Your task to perform on an android device: View the shopping cart on bestbuy.com. Image 0: 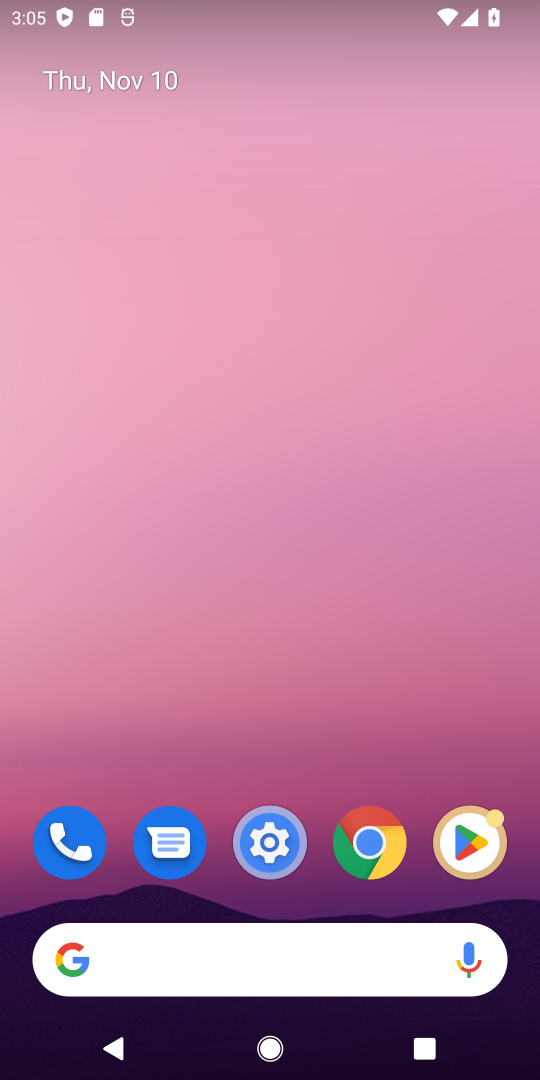
Step 0: click (123, 960)
Your task to perform on an android device: View the shopping cart on bestbuy.com. Image 1: 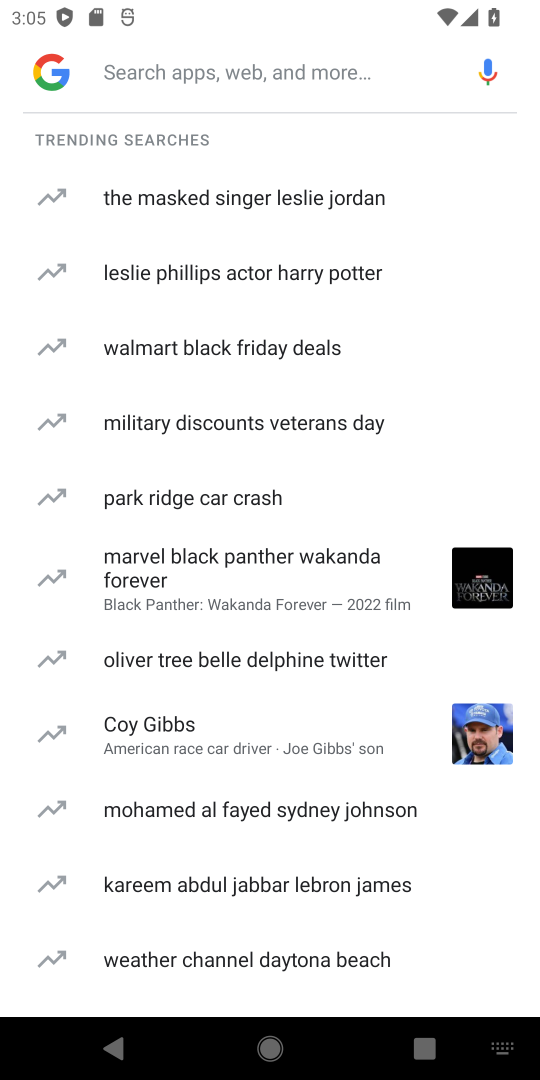
Step 1: type " bestbuy.com"
Your task to perform on an android device: View the shopping cart on bestbuy.com. Image 2: 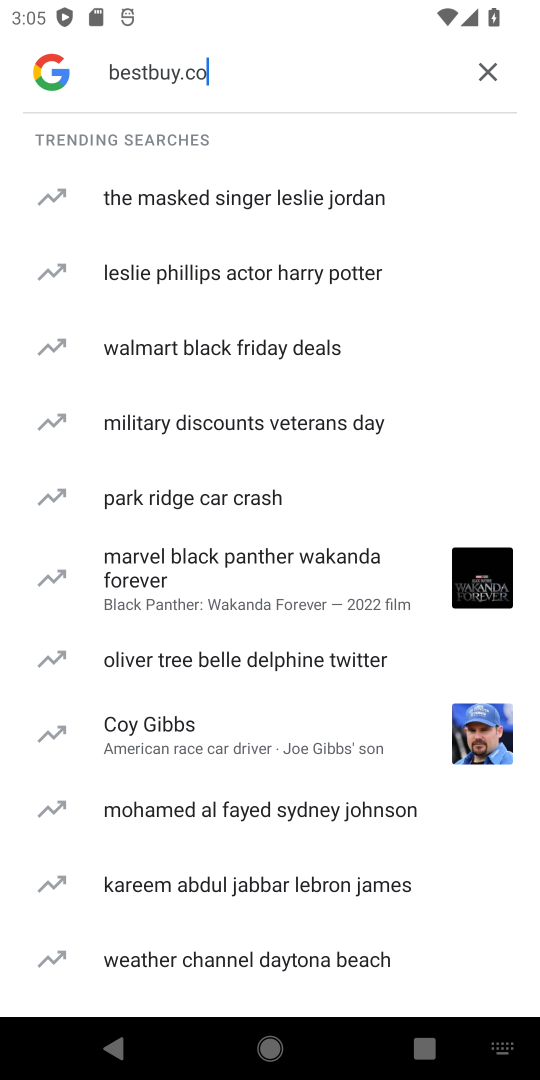
Step 2: press enter
Your task to perform on an android device: View the shopping cart on bestbuy.com. Image 3: 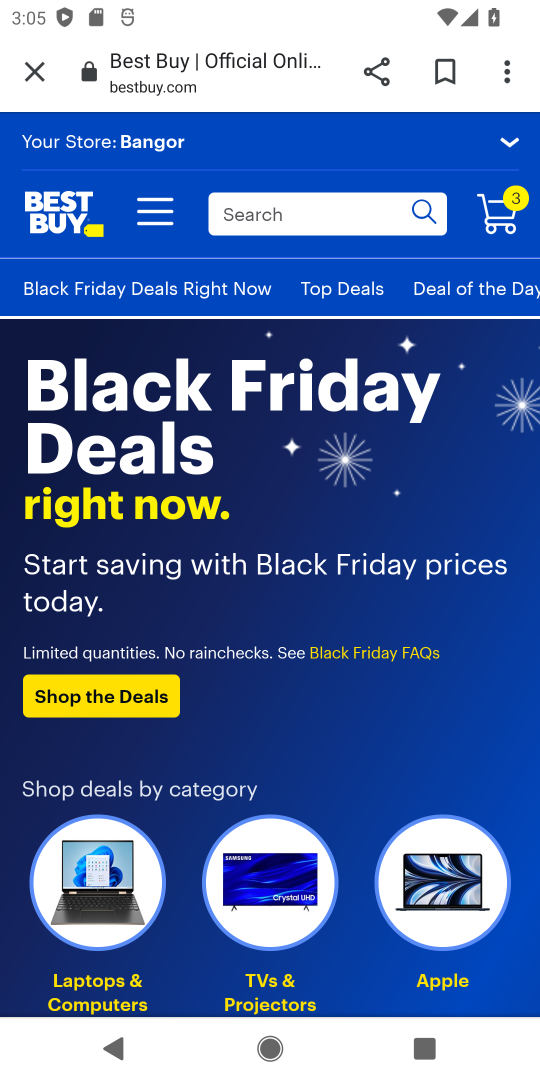
Step 3: click (510, 221)
Your task to perform on an android device: View the shopping cart on bestbuy.com. Image 4: 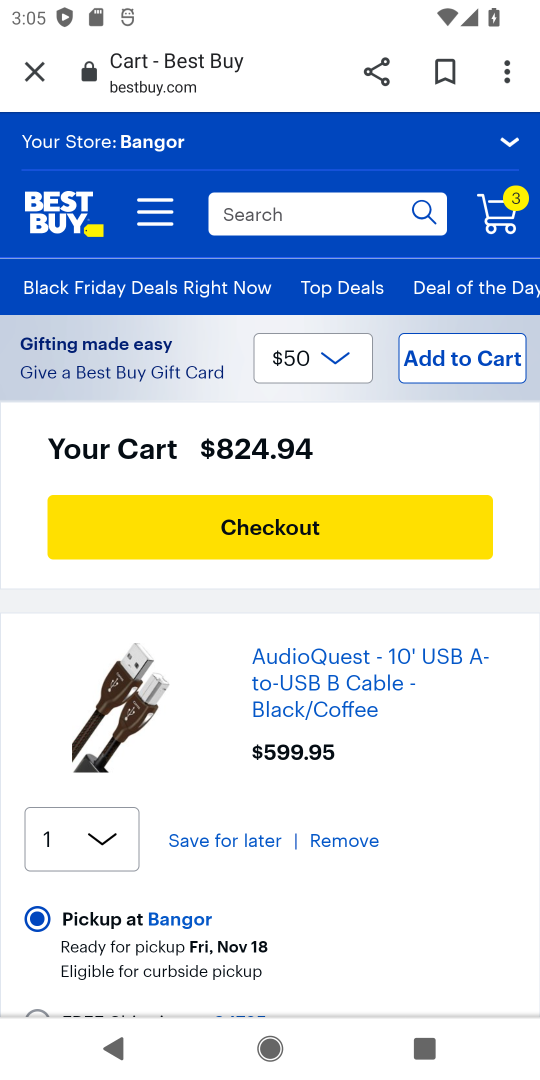
Step 4: task complete